Your task to perform on an android device: toggle sleep mode Image 0: 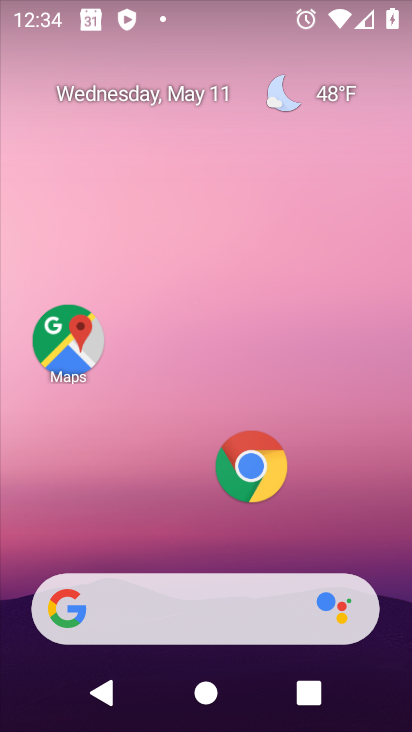
Step 0: drag from (164, 462) to (206, 4)
Your task to perform on an android device: toggle sleep mode Image 1: 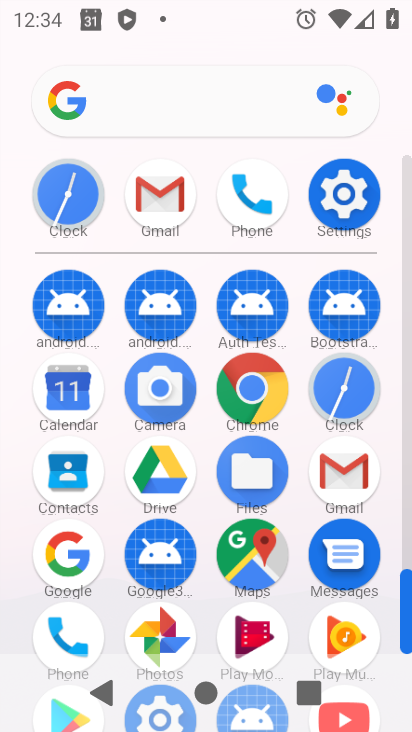
Step 1: click (345, 194)
Your task to perform on an android device: toggle sleep mode Image 2: 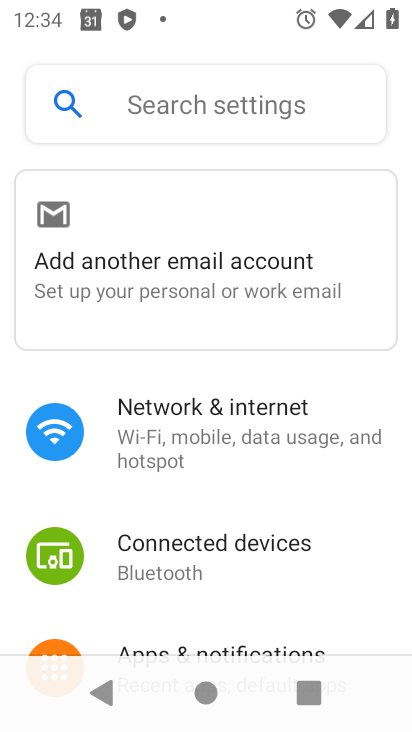
Step 2: click (147, 84)
Your task to perform on an android device: toggle sleep mode Image 3: 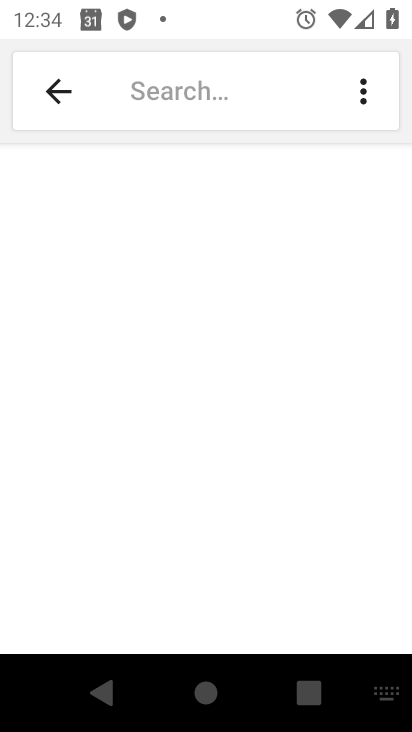
Step 3: type "sleep mode"
Your task to perform on an android device: toggle sleep mode Image 4: 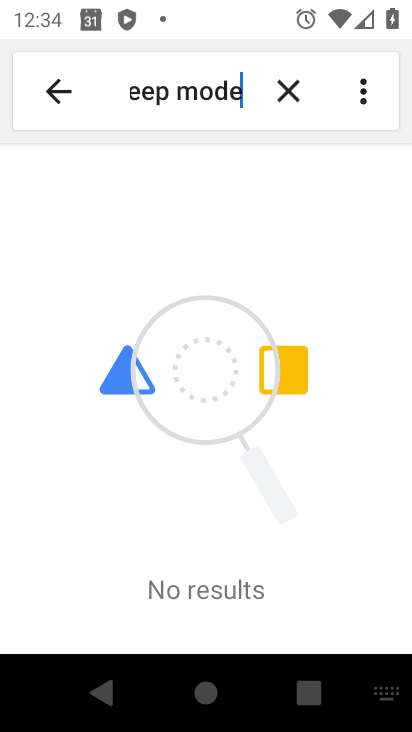
Step 4: task complete